Your task to perform on an android device: delete browsing data in the chrome app Image 0: 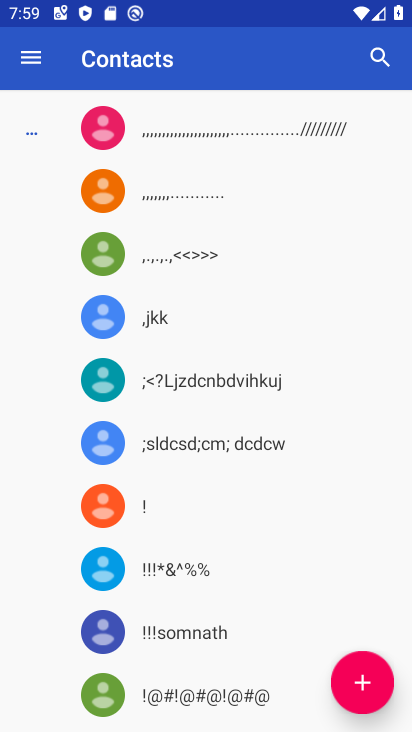
Step 0: press home button
Your task to perform on an android device: delete browsing data in the chrome app Image 1: 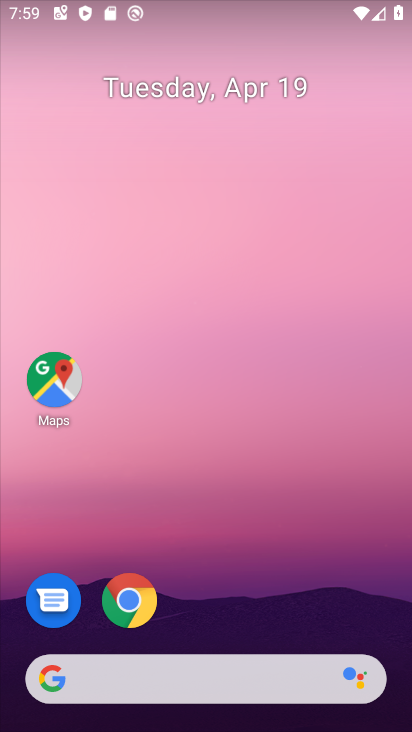
Step 1: drag from (273, 620) to (200, 33)
Your task to perform on an android device: delete browsing data in the chrome app Image 2: 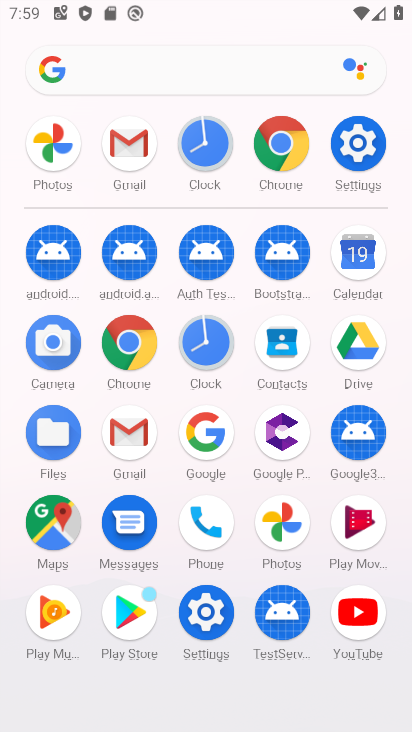
Step 2: click (272, 135)
Your task to perform on an android device: delete browsing data in the chrome app Image 3: 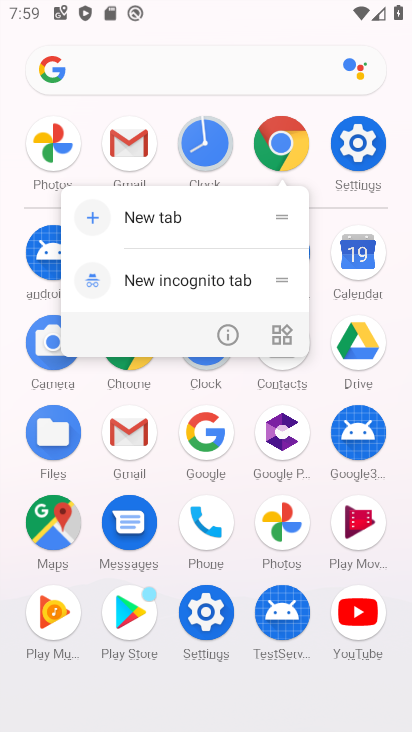
Step 3: click (281, 143)
Your task to perform on an android device: delete browsing data in the chrome app Image 4: 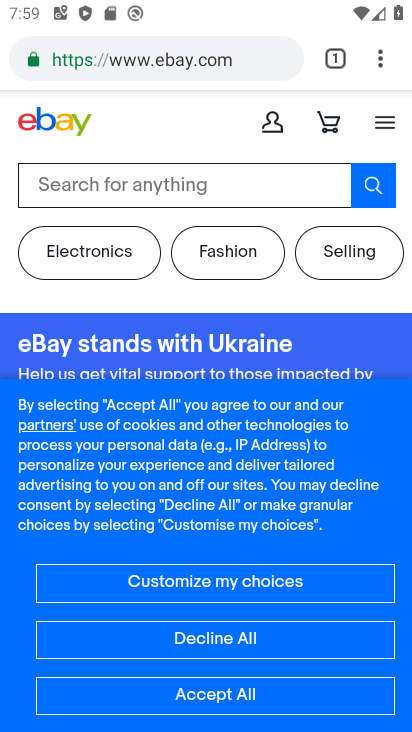
Step 4: press back button
Your task to perform on an android device: delete browsing data in the chrome app Image 5: 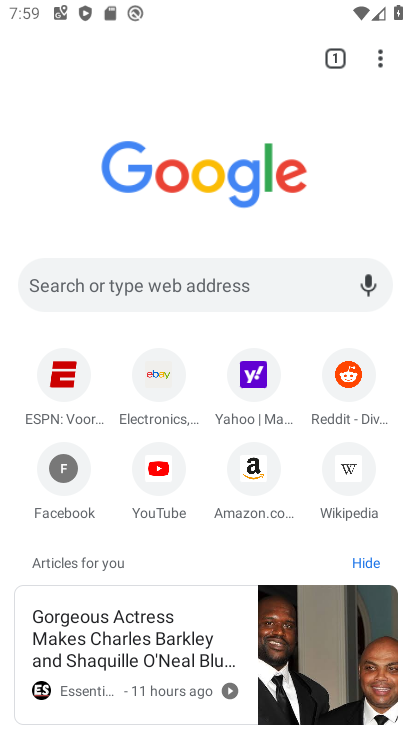
Step 5: click (383, 49)
Your task to perform on an android device: delete browsing data in the chrome app Image 6: 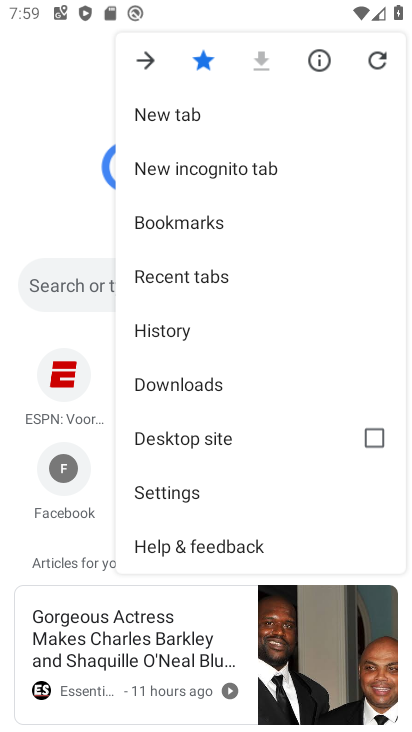
Step 6: click (205, 335)
Your task to perform on an android device: delete browsing data in the chrome app Image 7: 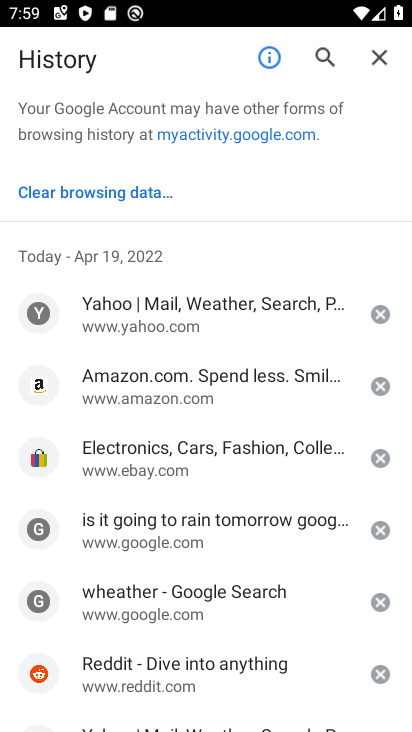
Step 7: click (113, 199)
Your task to perform on an android device: delete browsing data in the chrome app Image 8: 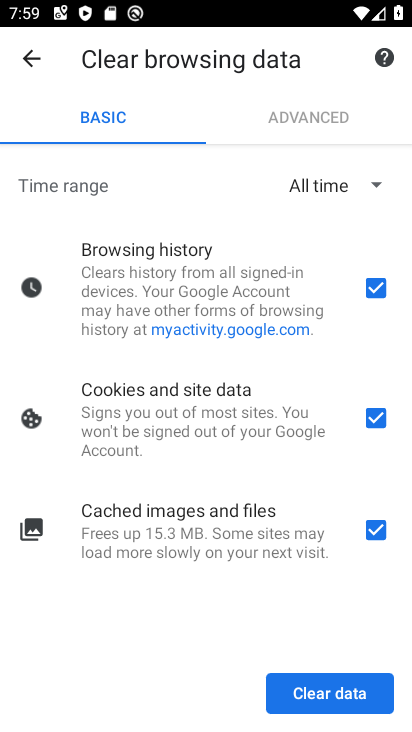
Step 8: click (319, 688)
Your task to perform on an android device: delete browsing data in the chrome app Image 9: 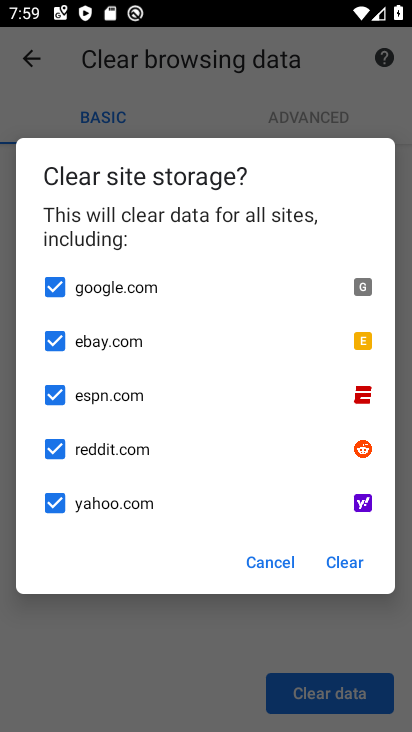
Step 9: click (344, 566)
Your task to perform on an android device: delete browsing data in the chrome app Image 10: 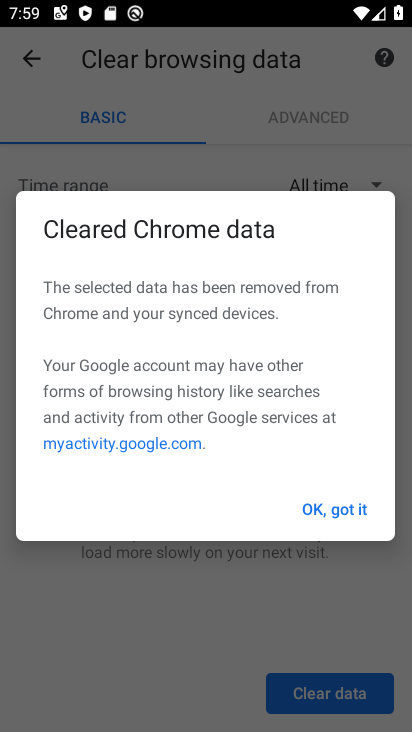
Step 10: click (324, 517)
Your task to perform on an android device: delete browsing data in the chrome app Image 11: 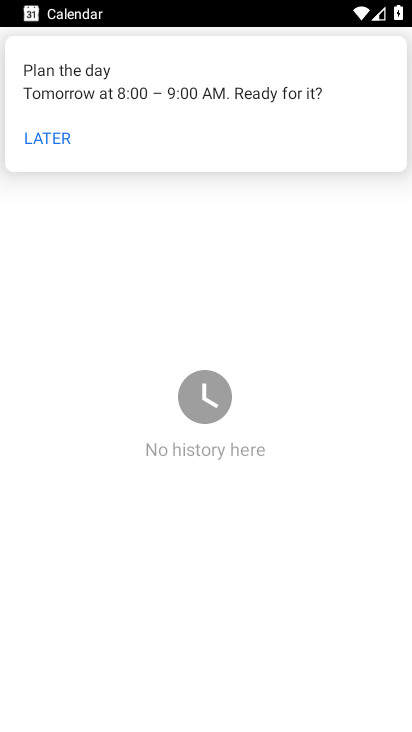
Step 11: task complete